Your task to perform on an android device: Go to network settings Image 0: 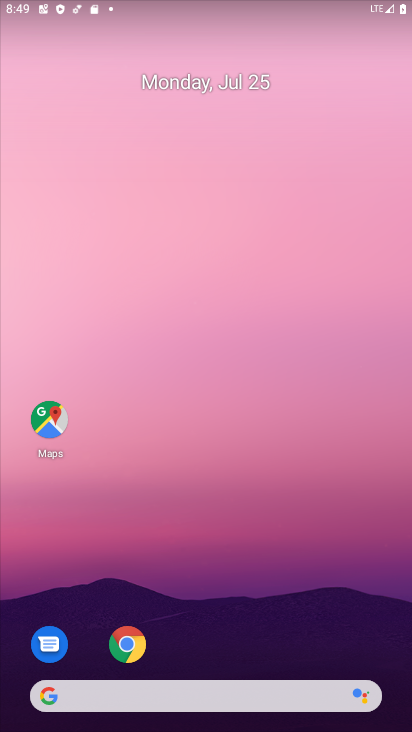
Step 0: drag from (267, 362) to (267, 179)
Your task to perform on an android device: Go to network settings Image 1: 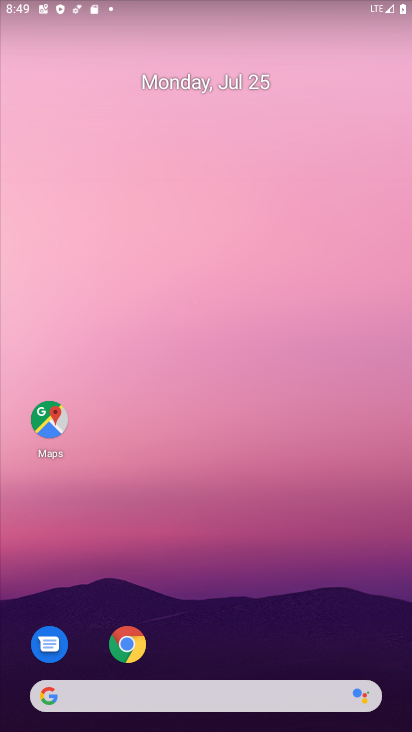
Step 1: drag from (216, 623) to (245, 135)
Your task to perform on an android device: Go to network settings Image 2: 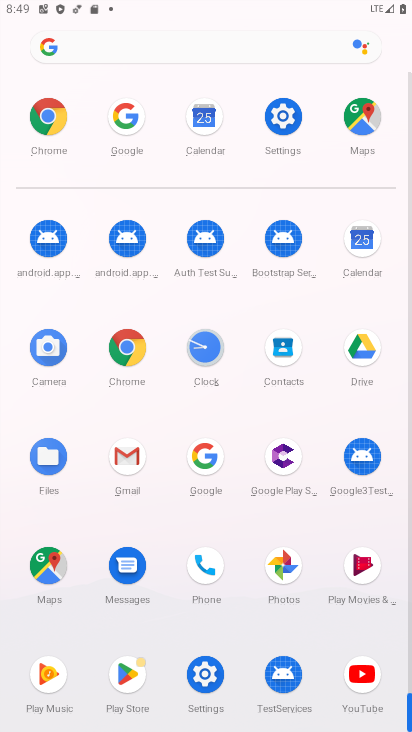
Step 2: click (210, 681)
Your task to perform on an android device: Go to network settings Image 3: 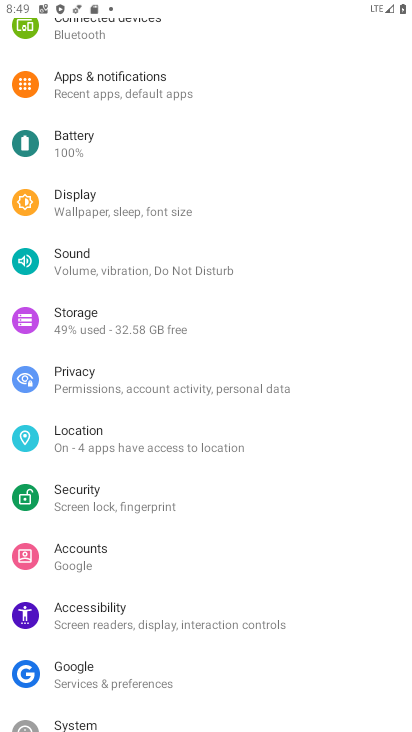
Step 3: click (203, 84)
Your task to perform on an android device: Go to network settings Image 4: 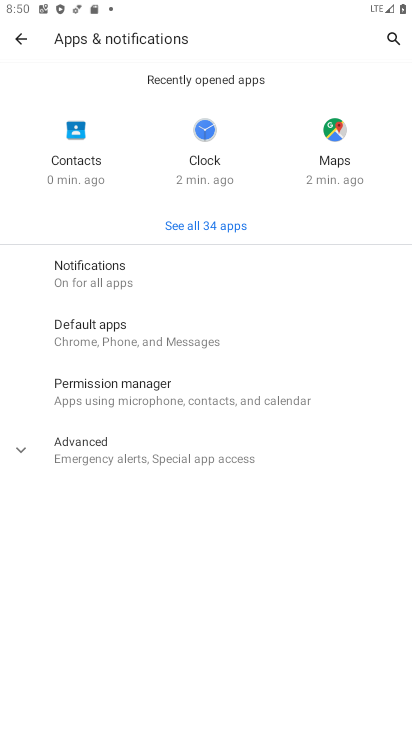
Step 4: press back button
Your task to perform on an android device: Go to network settings Image 5: 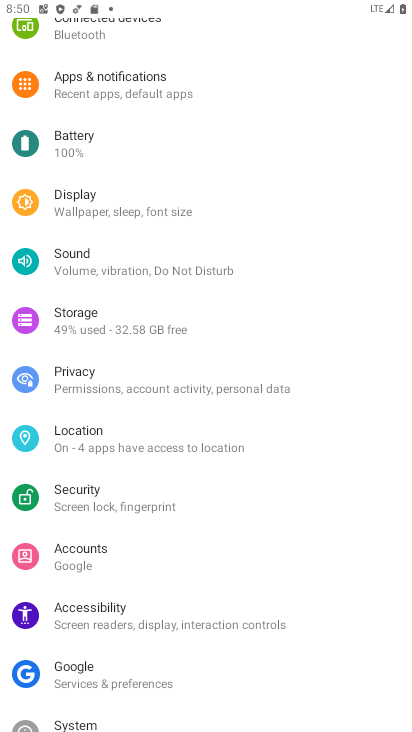
Step 5: drag from (205, 76) to (180, 504)
Your task to perform on an android device: Go to network settings Image 6: 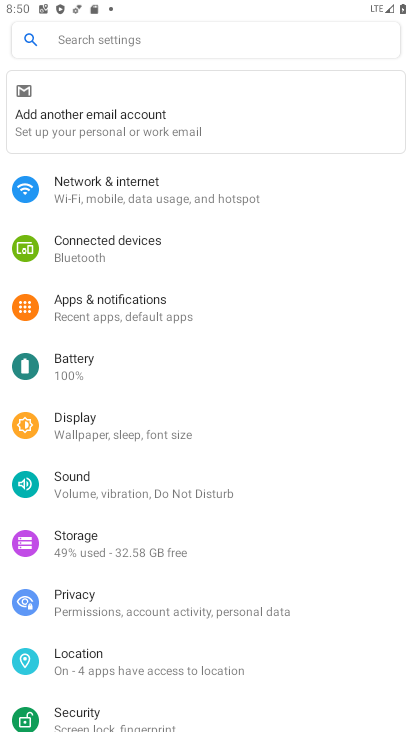
Step 6: click (183, 195)
Your task to perform on an android device: Go to network settings Image 7: 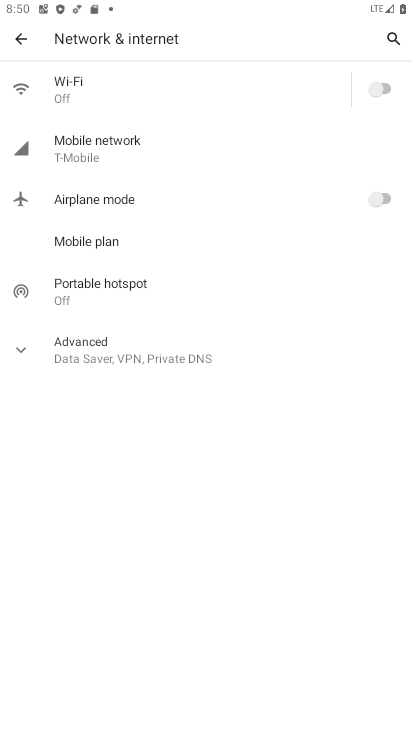
Step 7: click (239, 139)
Your task to perform on an android device: Go to network settings Image 8: 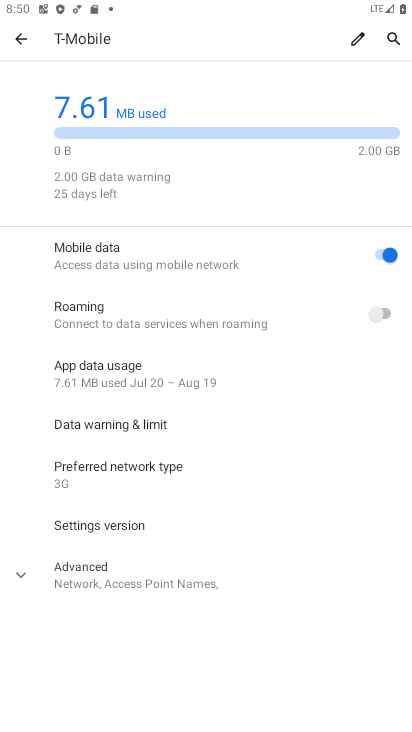
Step 8: task complete